Your task to perform on an android device: What's the weather? Image 0: 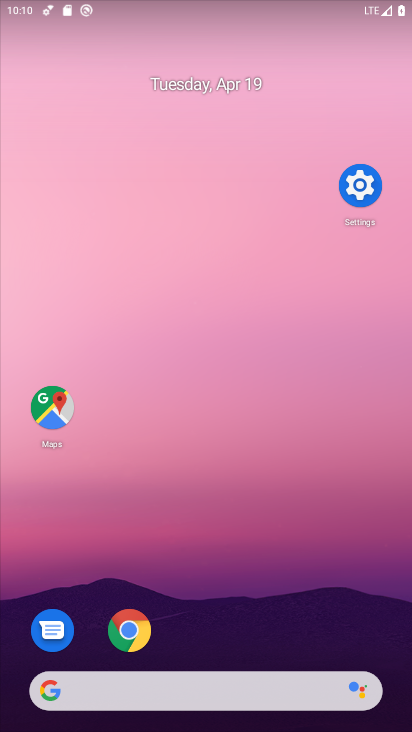
Step 0: drag from (216, 621) to (349, 11)
Your task to perform on an android device: What's the weather? Image 1: 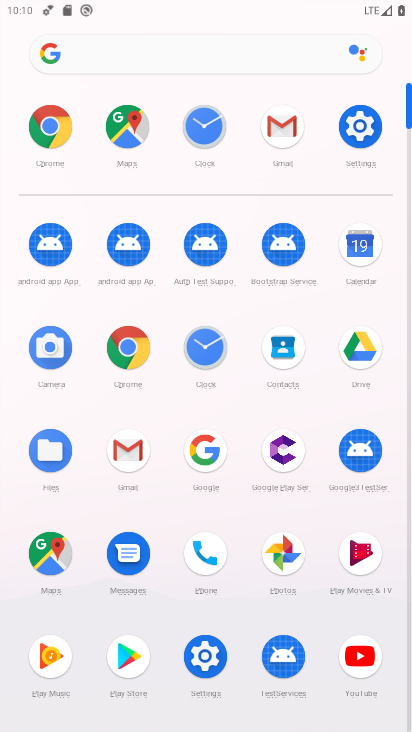
Step 1: click (210, 450)
Your task to perform on an android device: What's the weather? Image 2: 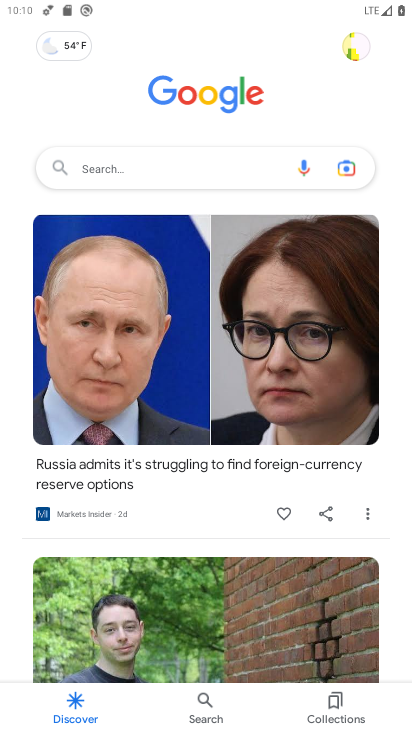
Step 2: click (218, 178)
Your task to perform on an android device: What's the weather? Image 3: 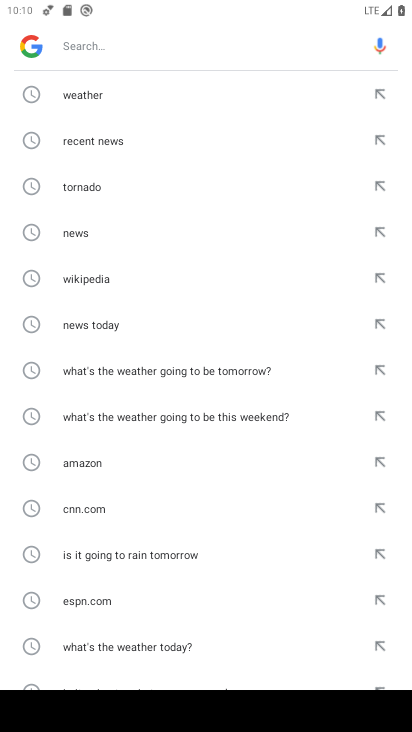
Step 3: click (213, 97)
Your task to perform on an android device: What's the weather? Image 4: 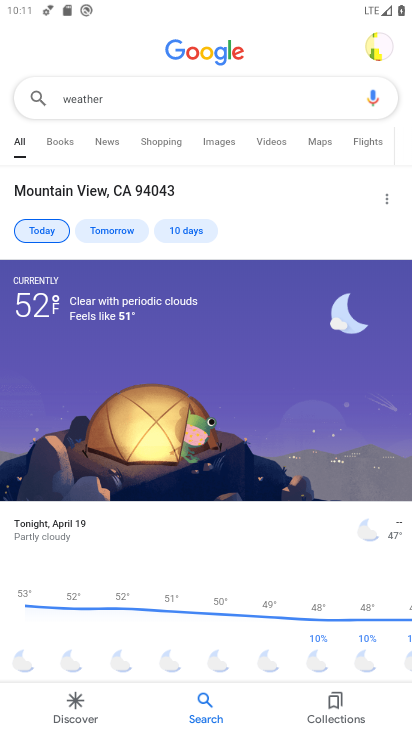
Step 4: task complete